Your task to perform on an android device: clear all cookies in the chrome app Image 0: 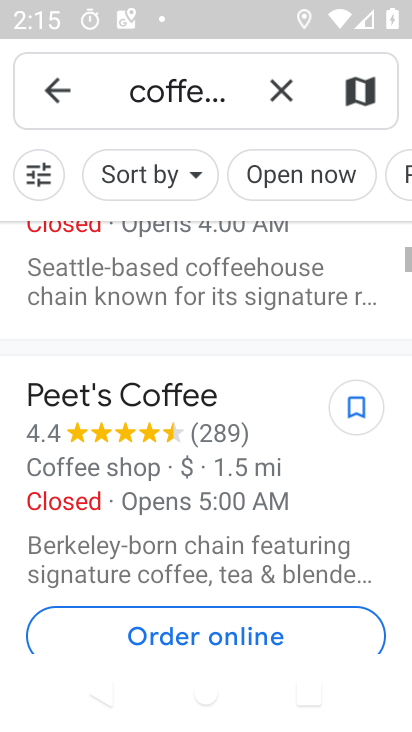
Step 0: press home button
Your task to perform on an android device: clear all cookies in the chrome app Image 1: 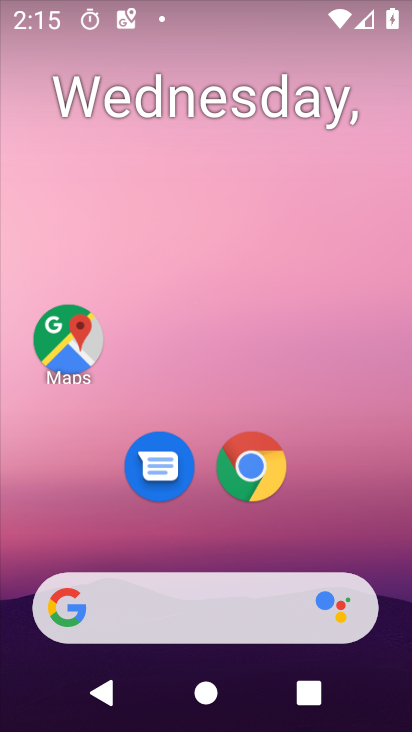
Step 1: click (279, 495)
Your task to perform on an android device: clear all cookies in the chrome app Image 2: 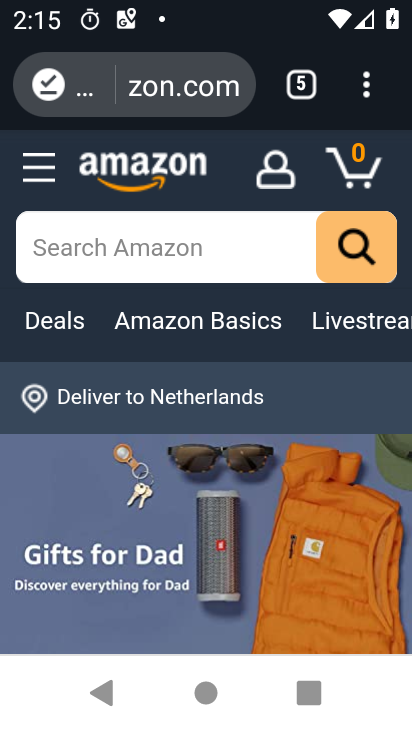
Step 2: click (374, 74)
Your task to perform on an android device: clear all cookies in the chrome app Image 3: 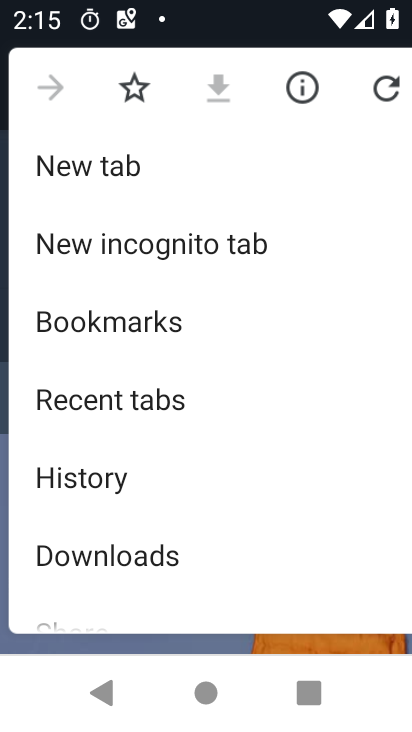
Step 3: drag from (201, 503) to (209, 133)
Your task to perform on an android device: clear all cookies in the chrome app Image 4: 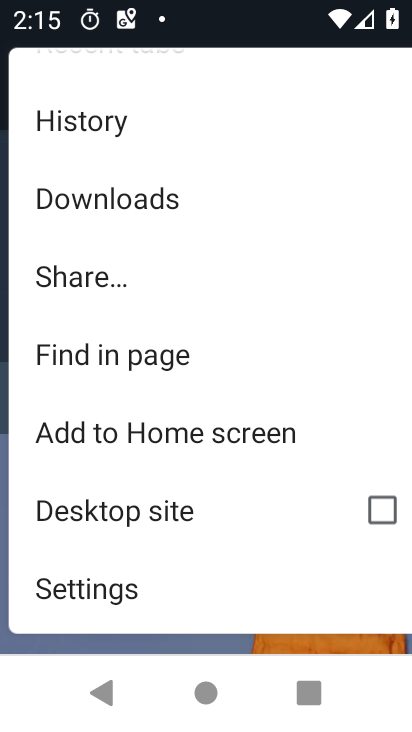
Step 4: drag from (186, 466) to (220, 99)
Your task to perform on an android device: clear all cookies in the chrome app Image 5: 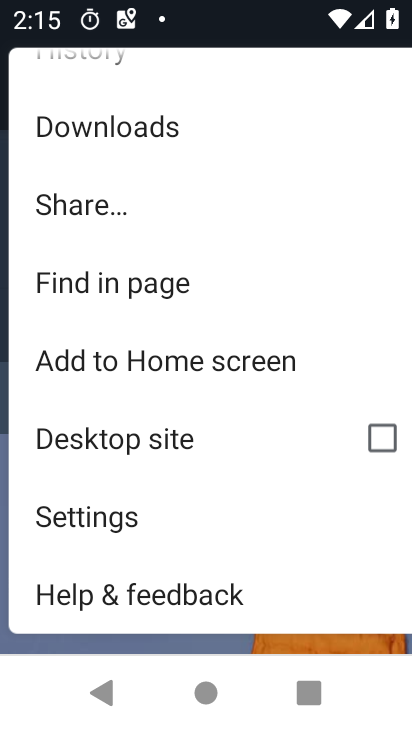
Step 5: click (128, 515)
Your task to perform on an android device: clear all cookies in the chrome app Image 6: 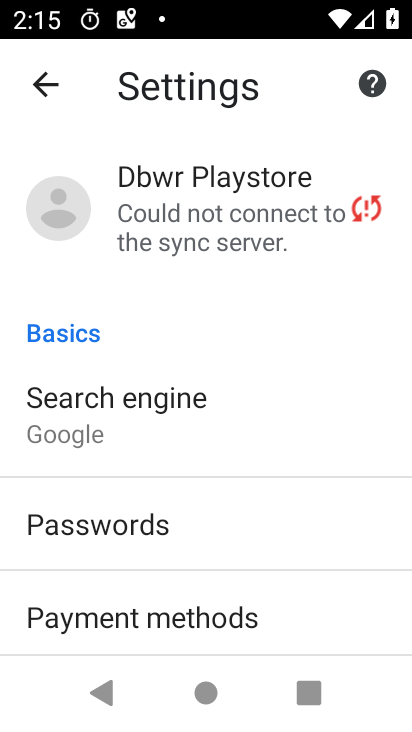
Step 6: drag from (144, 539) to (202, 86)
Your task to perform on an android device: clear all cookies in the chrome app Image 7: 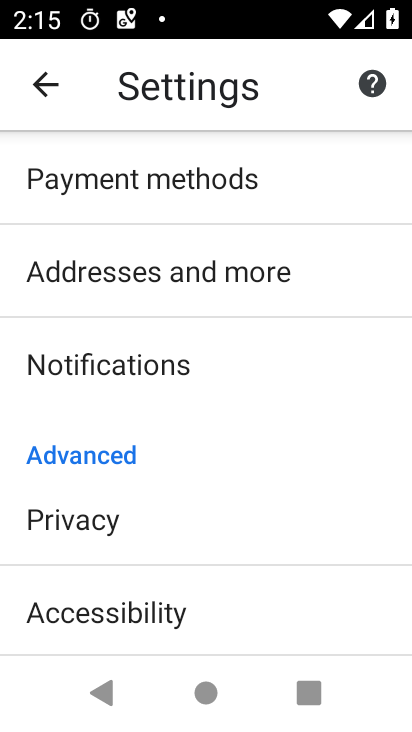
Step 7: drag from (271, 592) to (274, 185)
Your task to perform on an android device: clear all cookies in the chrome app Image 8: 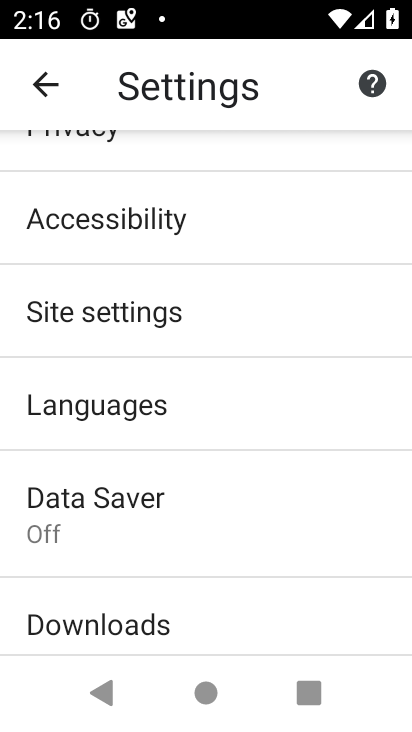
Step 8: click (220, 302)
Your task to perform on an android device: clear all cookies in the chrome app Image 9: 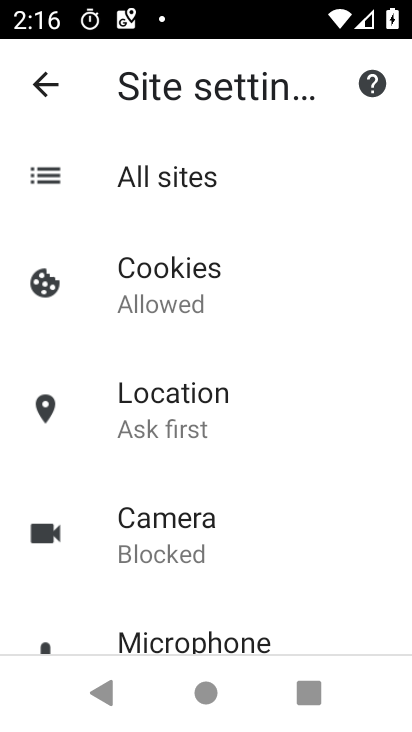
Step 9: click (220, 302)
Your task to perform on an android device: clear all cookies in the chrome app Image 10: 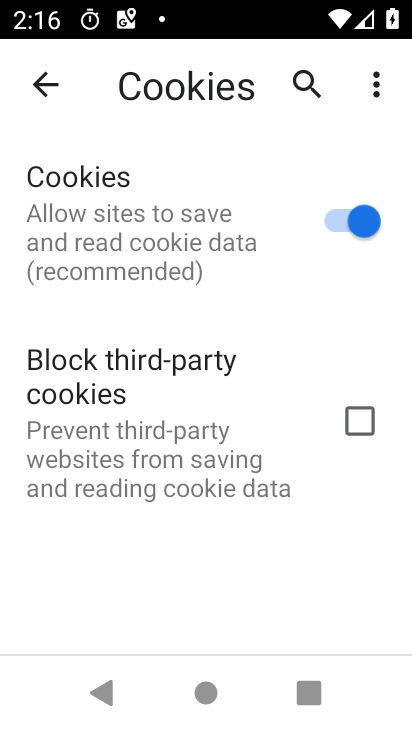
Step 10: click (376, 72)
Your task to perform on an android device: clear all cookies in the chrome app Image 11: 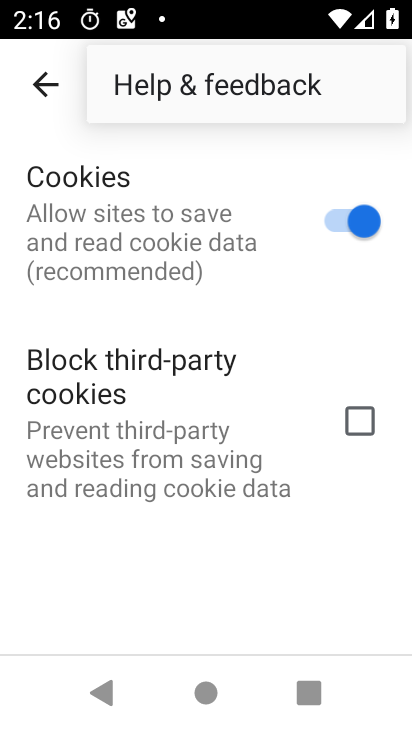
Step 11: task complete